Your task to perform on an android device: toggle improve location accuracy Image 0: 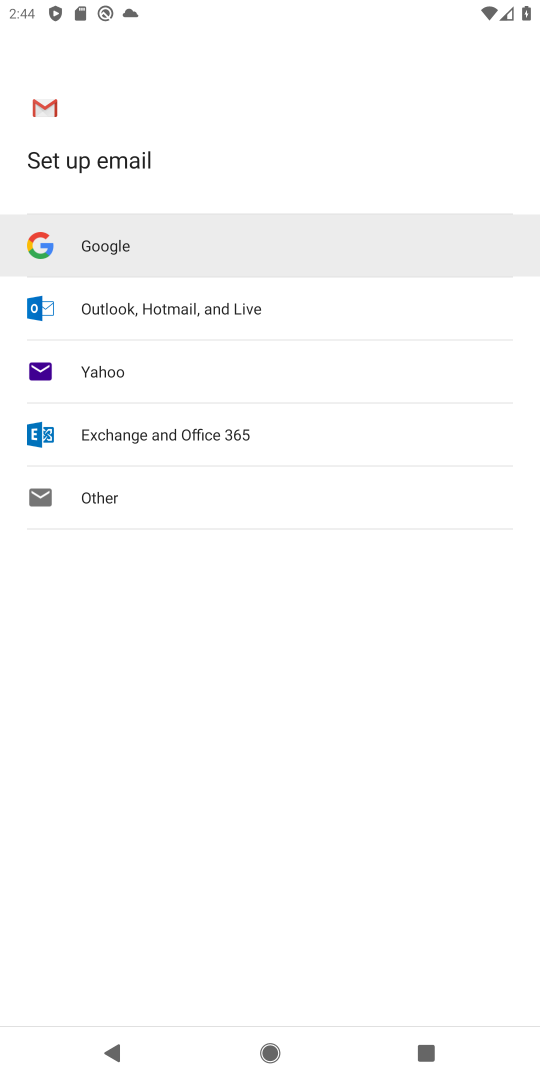
Step 0: press home button
Your task to perform on an android device: toggle improve location accuracy Image 1: 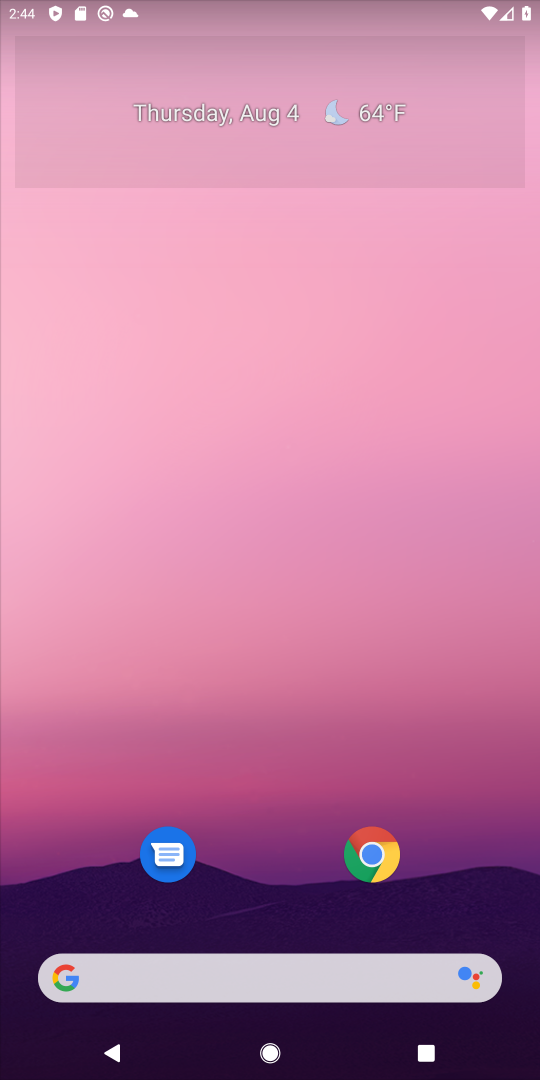
Step 1: drag from (367, 646) to (431, 69)
Your task to perform on an android device: toggle improve location accuracy Image 2: 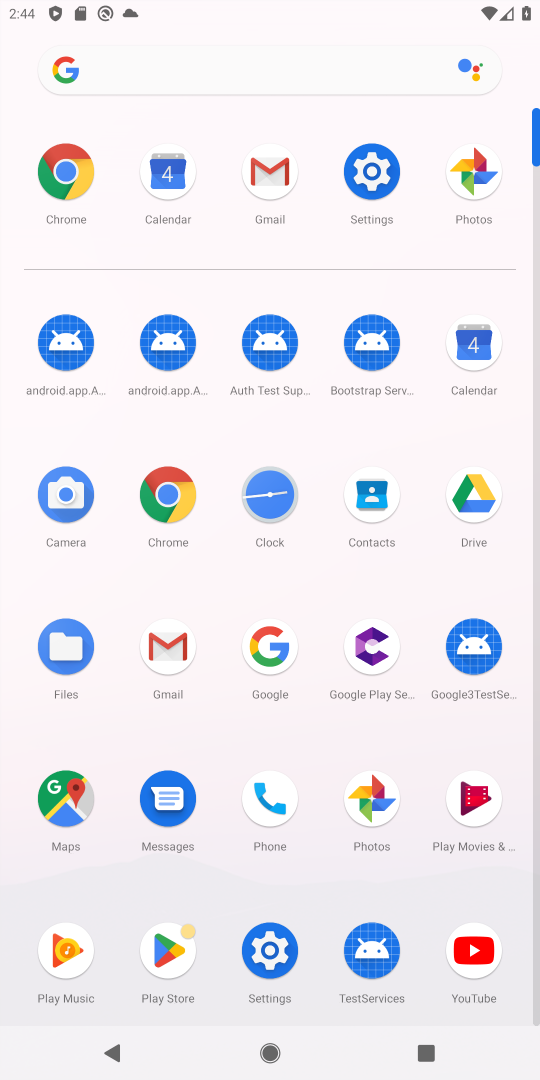
Step 2: click (270, 954)
Your task to perform on an android device: toggle improve location accuracy Image 3: 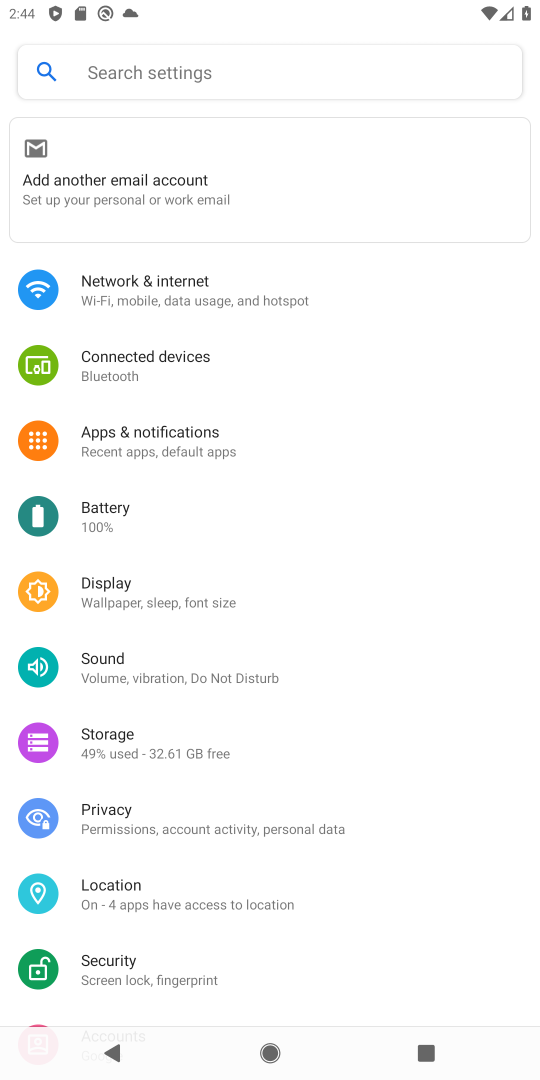
Step 3: task complete